Your task to perform on an android device: open app "Pinterest" Image 0: 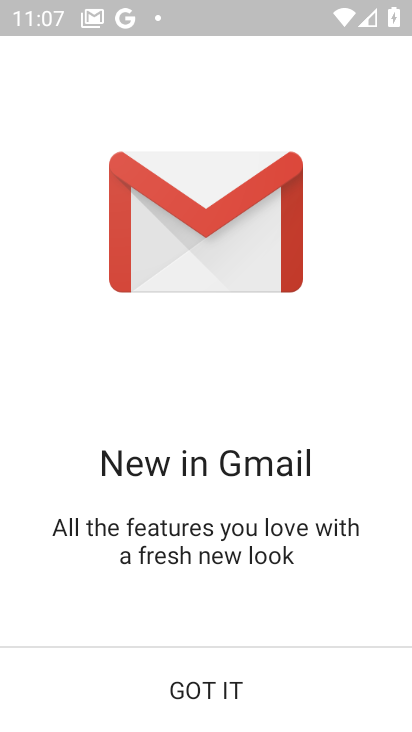
Step 0: press home button
Your task to perform on an android device: open app "Pinterest" Image 1: 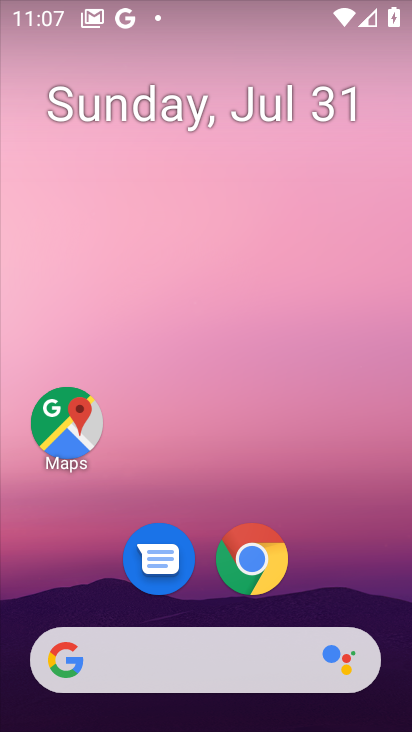
Step 1: drag from (50, 603) to (211, 13)
Your task to perform on an android device: open app "Pinterest" Image 2: 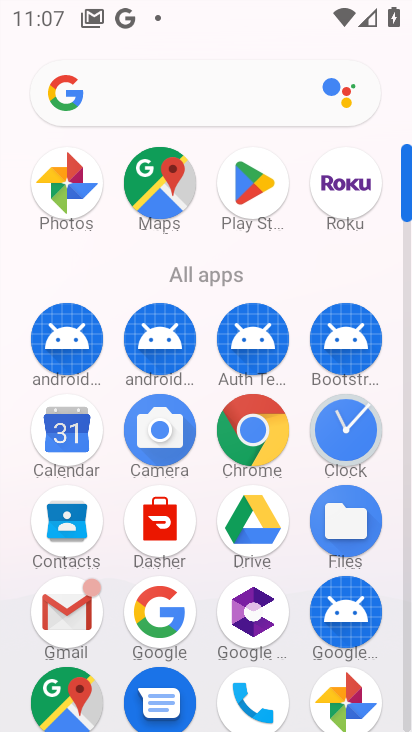
Step 2: click (239, 183)
Your task to perform on an android device: open app "Pinterest" Image 3: 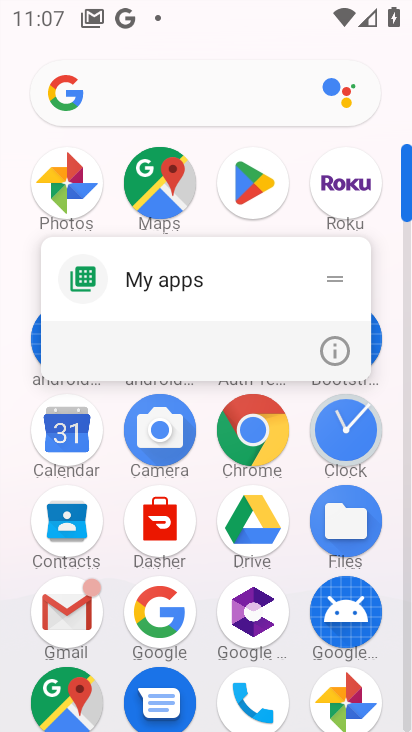
Step 3: click (252, 181)
Your task to perform on an android device: open app "Pinterest" Image 4: 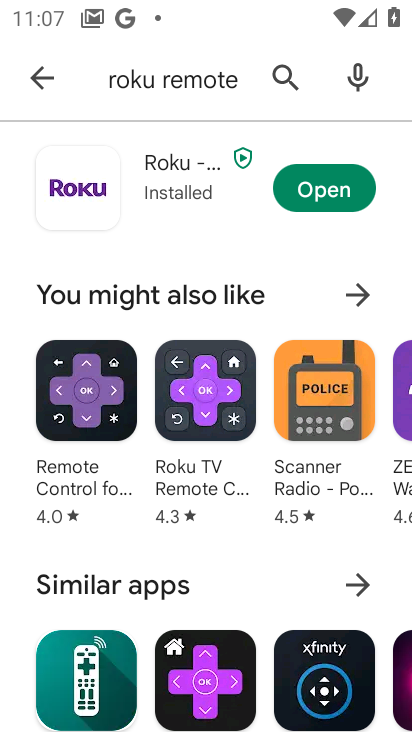
Step 4: click (276, 65)
Your task to perform on an android device: open app "Pinterest" Image 5: 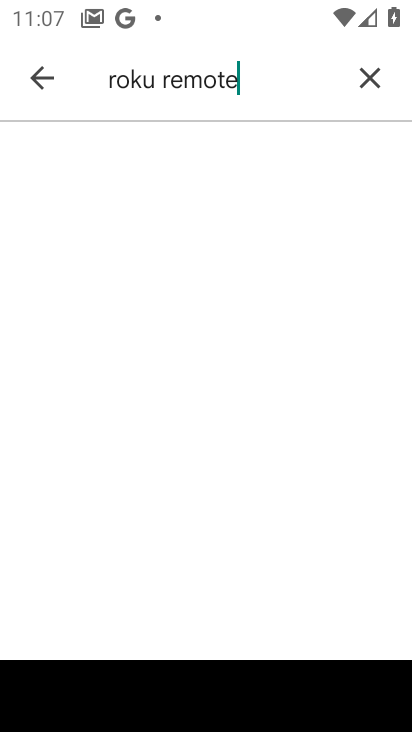
Step 5: click (374, 76)
Your task to perform on an android device: open app "Pinterest" Image 6: 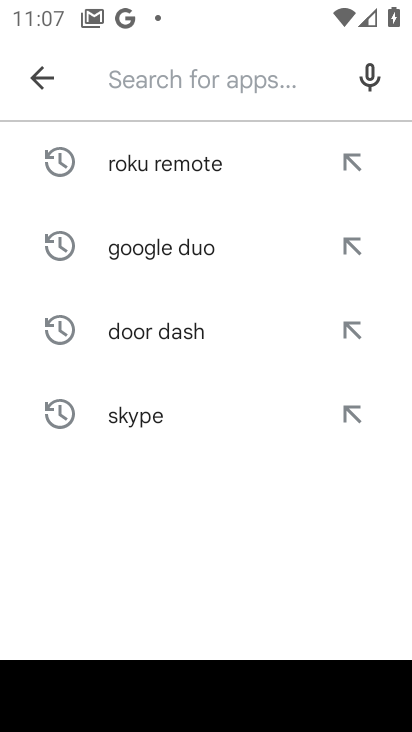
Step 6: click (196, 72)
Your task to perform on an android device: open app "Pinterest" Image 7: 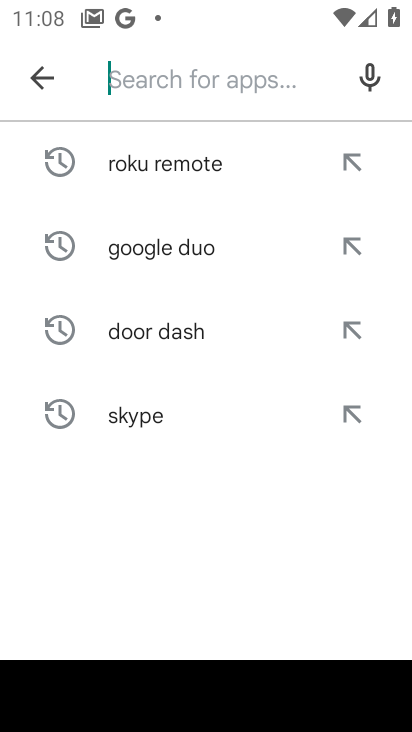
Step 7: type "pinterest "
Your task to perform on an android device: open app "Pinterest" Image 8: 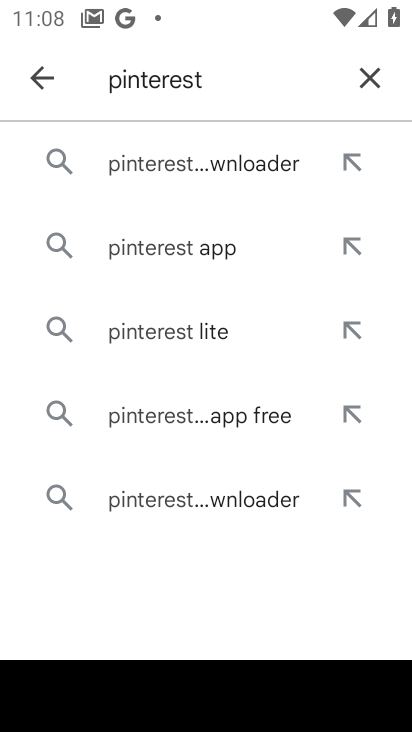
Step 8: click (146, 245)
Your task to perform on an android device: open app "Pinterest" Image 9: 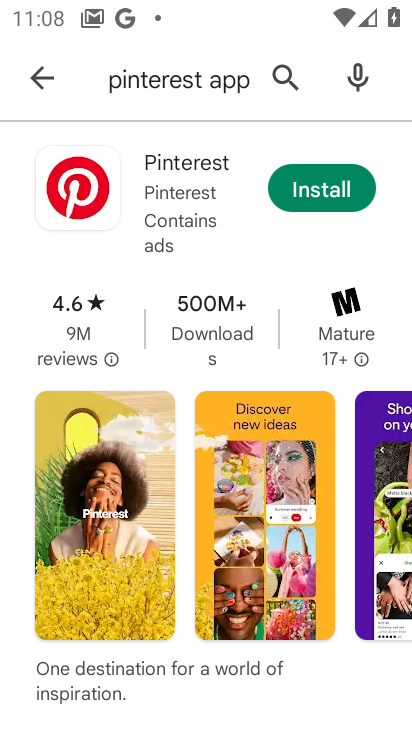
Step 9: click (326, 180)
Your task to perform on an android device: open app "Pinterest" Image 10: 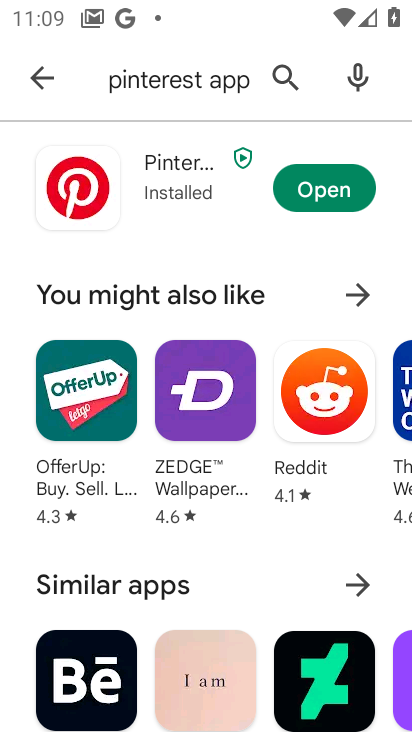
Step 10: click (287, 191)
Your task to perform on an android device: open app "Pinterest" Image 11: 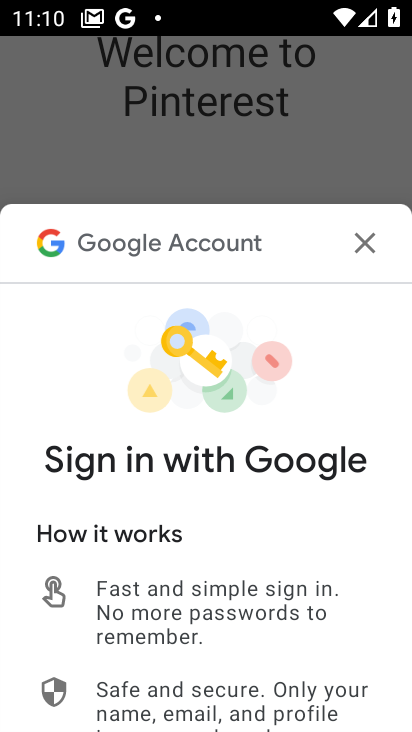
Step 11: task complete